Your task to perform on an android device: Open Reddit.com Image 0: 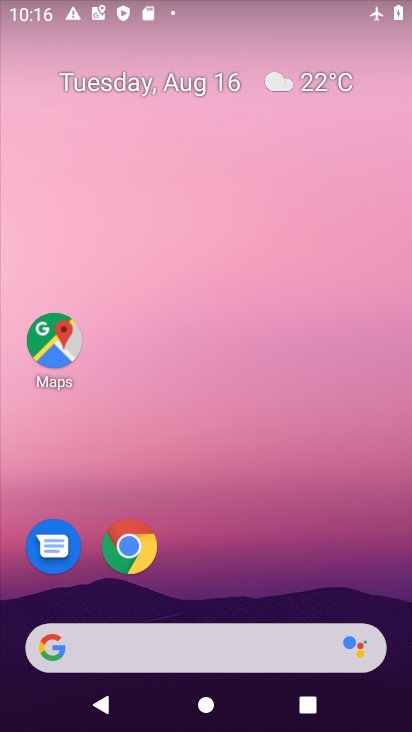
Step 0: click (238, 652)
Your task to perform on an android device: Open Reddit.com Image 1: 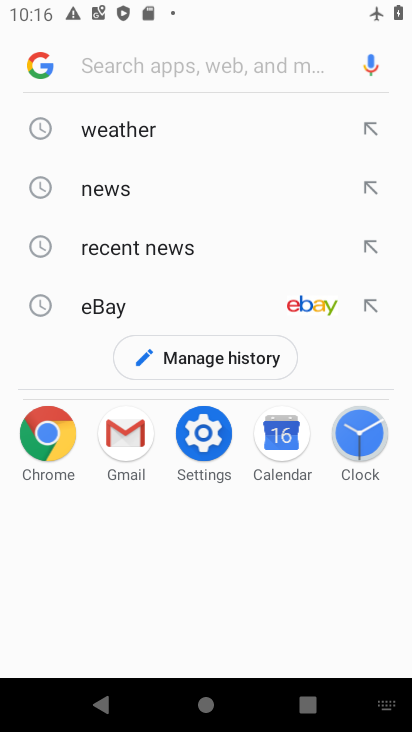
Step 1: type "reddit.cpm"
Your task to perform on an android device: Open Reddit.com Image 2: 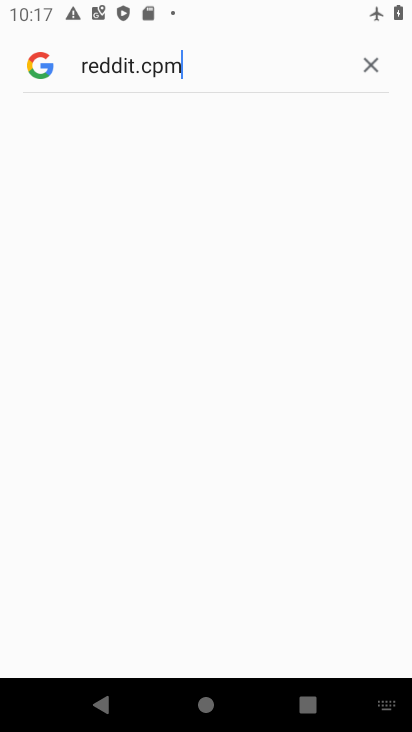
Step 2: click (368, 62)
Your task to perform on an android device: Open Reddit.com Image 3: 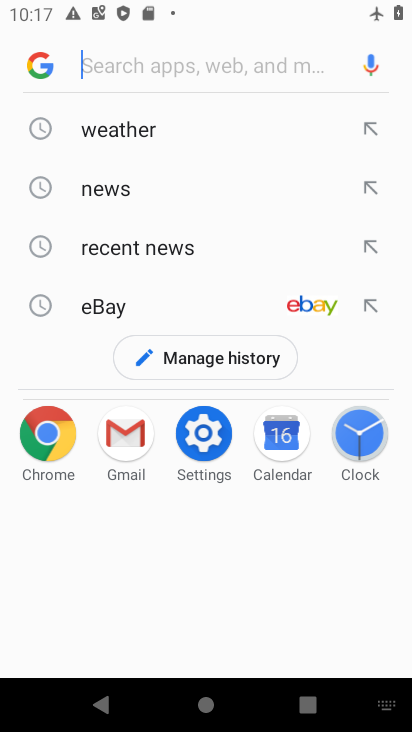
Step 3: type "reddit.com"
Your task to perform on an android device: Open Reddit.com Image 4: 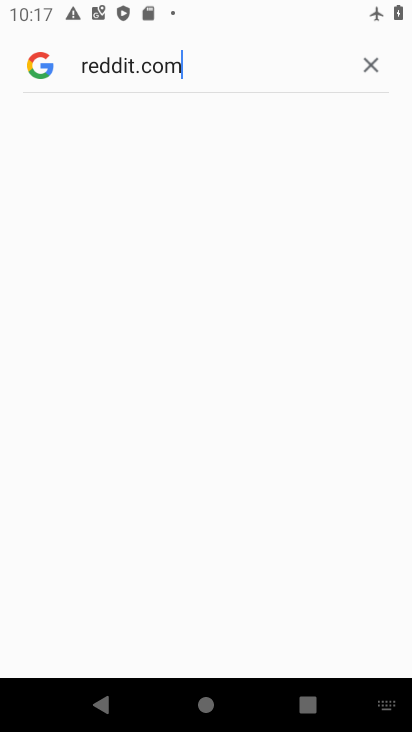
Step 4: type " "
Your task to perform on an android device: Open Reddit.com Image 5: 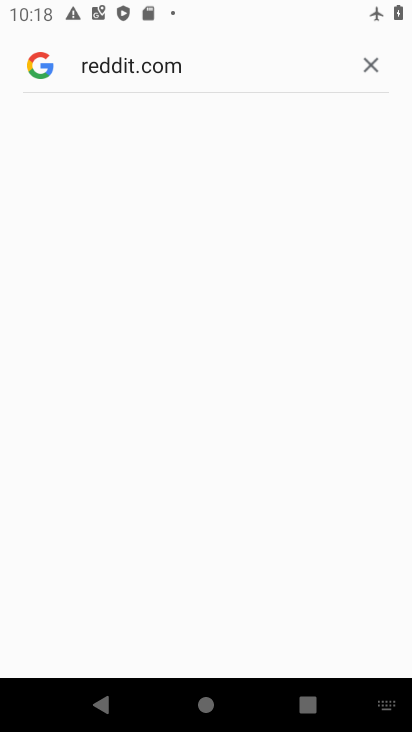
Step 5: task complete